Your task to perform on an android device: Clear the shopping cart on target.com. Image 0: 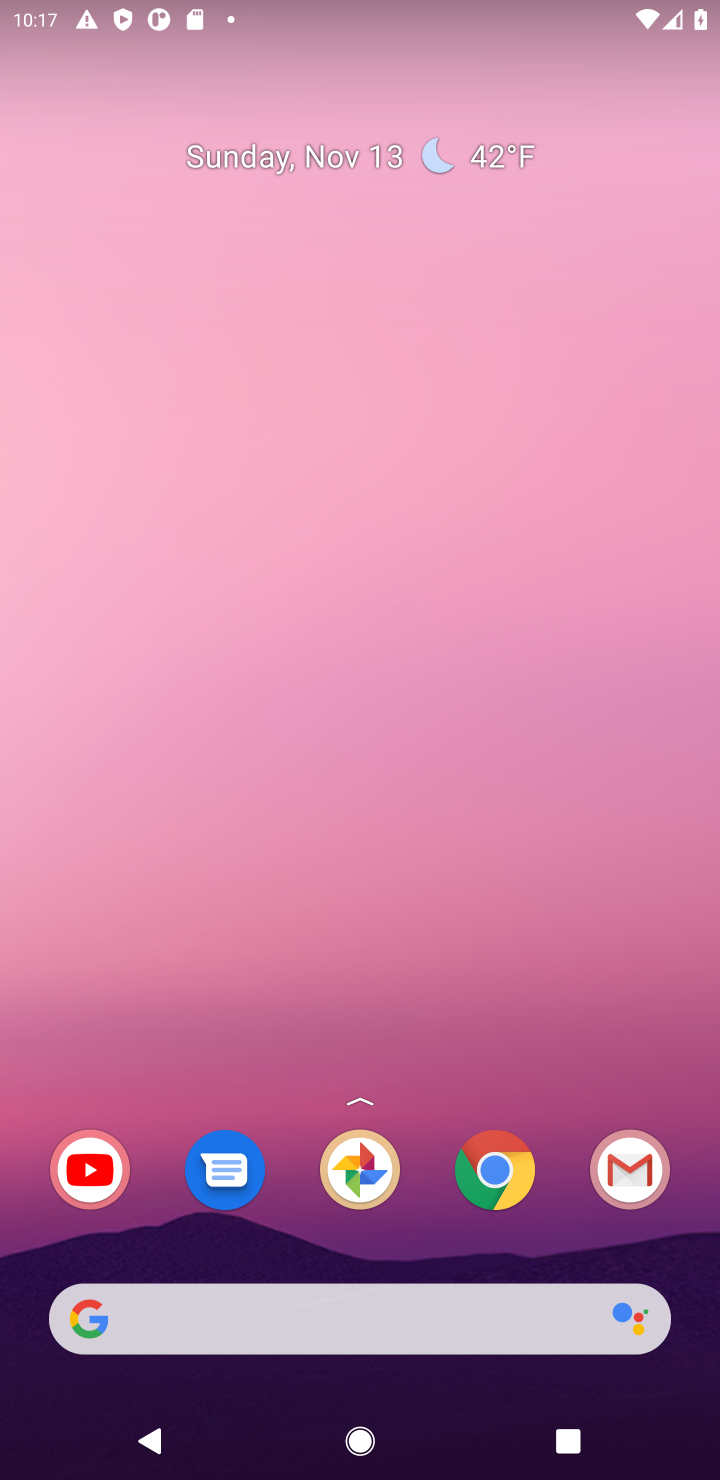
Step 0: drag from (200, 904) to (257, 21)
Your task to perform on an android device: Clear the shopping cart on target.com. Image 1: 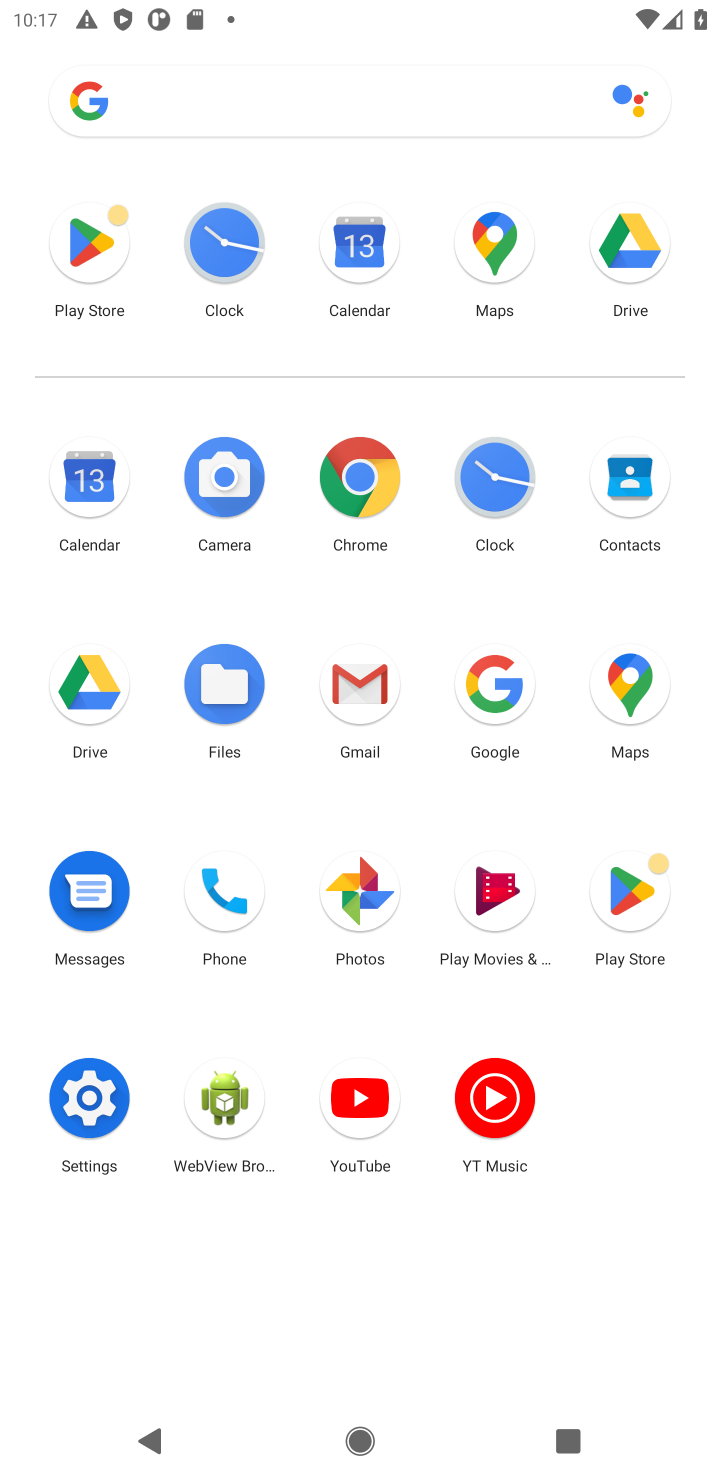
Step 1: click (346, 495)
Your task to perform on an android device: Clear the shopping cart on target.com. Image 2: 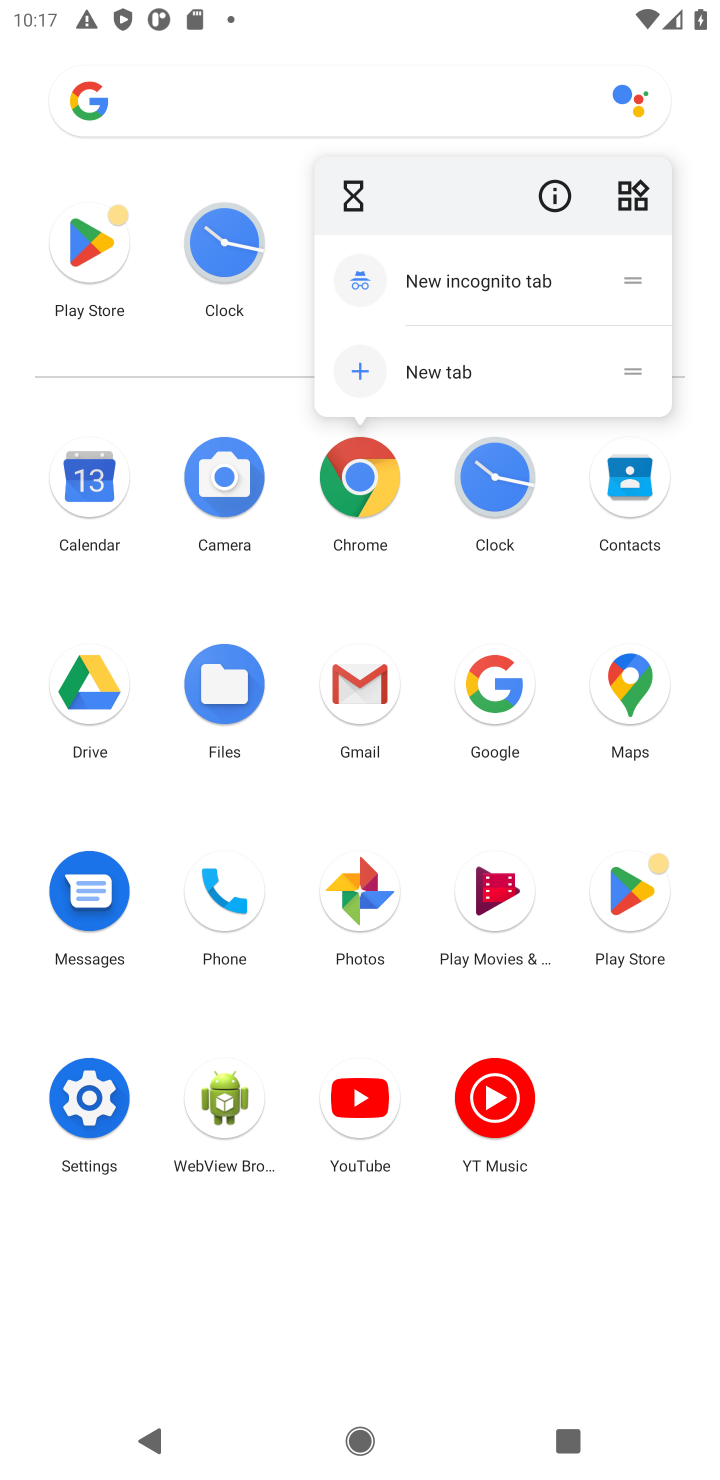
Step 2: click (359, 489)
Your task to perform on an android device: Clear the shopping cart on target.com. Image 3: 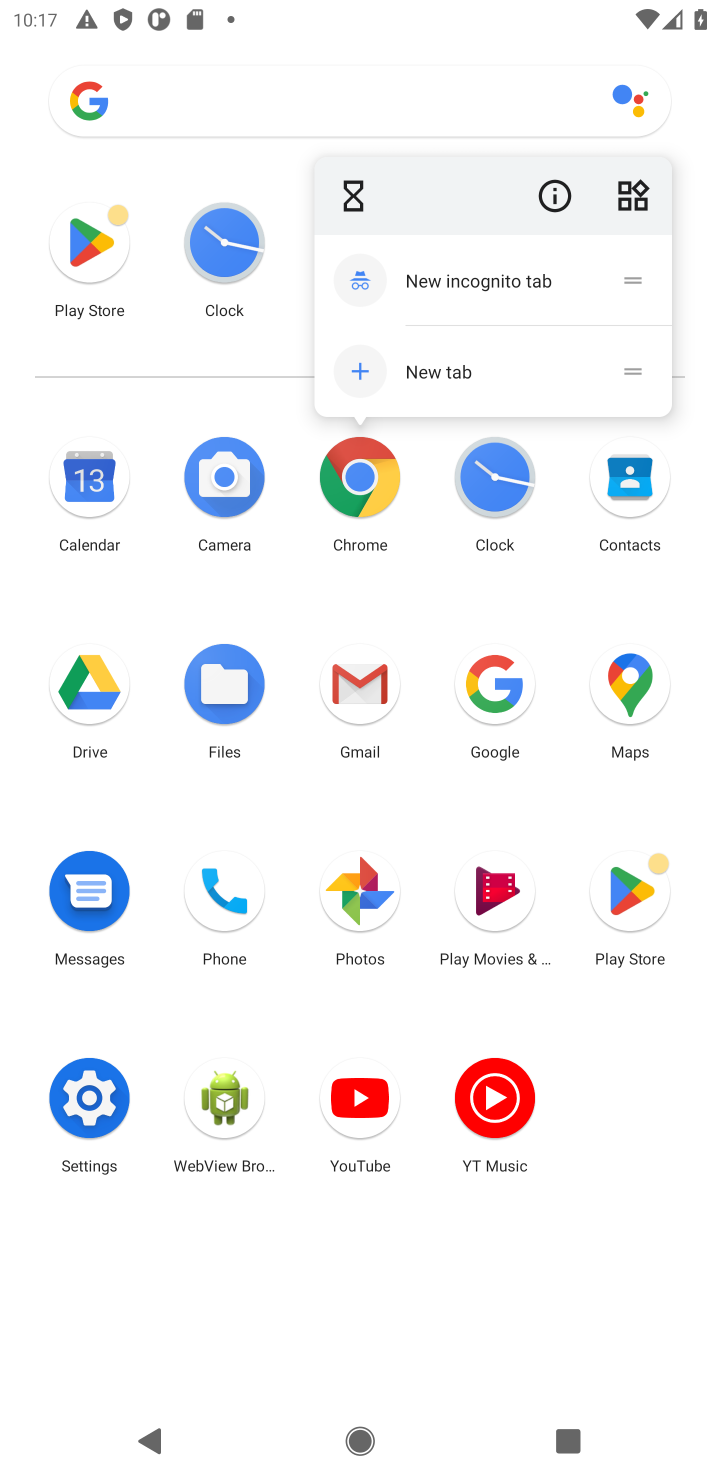
Step 3: click (359, 489)
Your task to perform on an android device: Clear the shopping cart on target.com. Image 4: 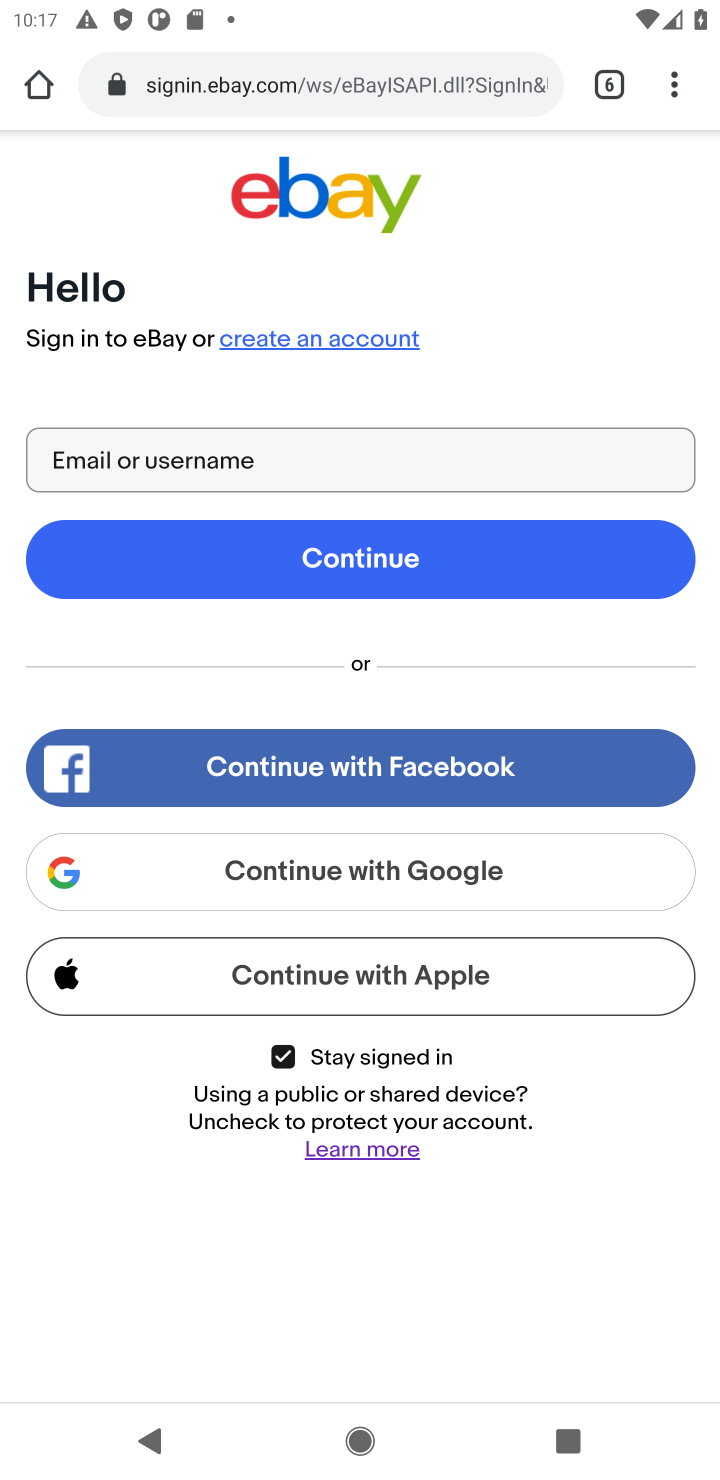
Step 4: click (401, 72)
Your task to perform on an android device: Clear the shopping cart on target.com. Image 5: 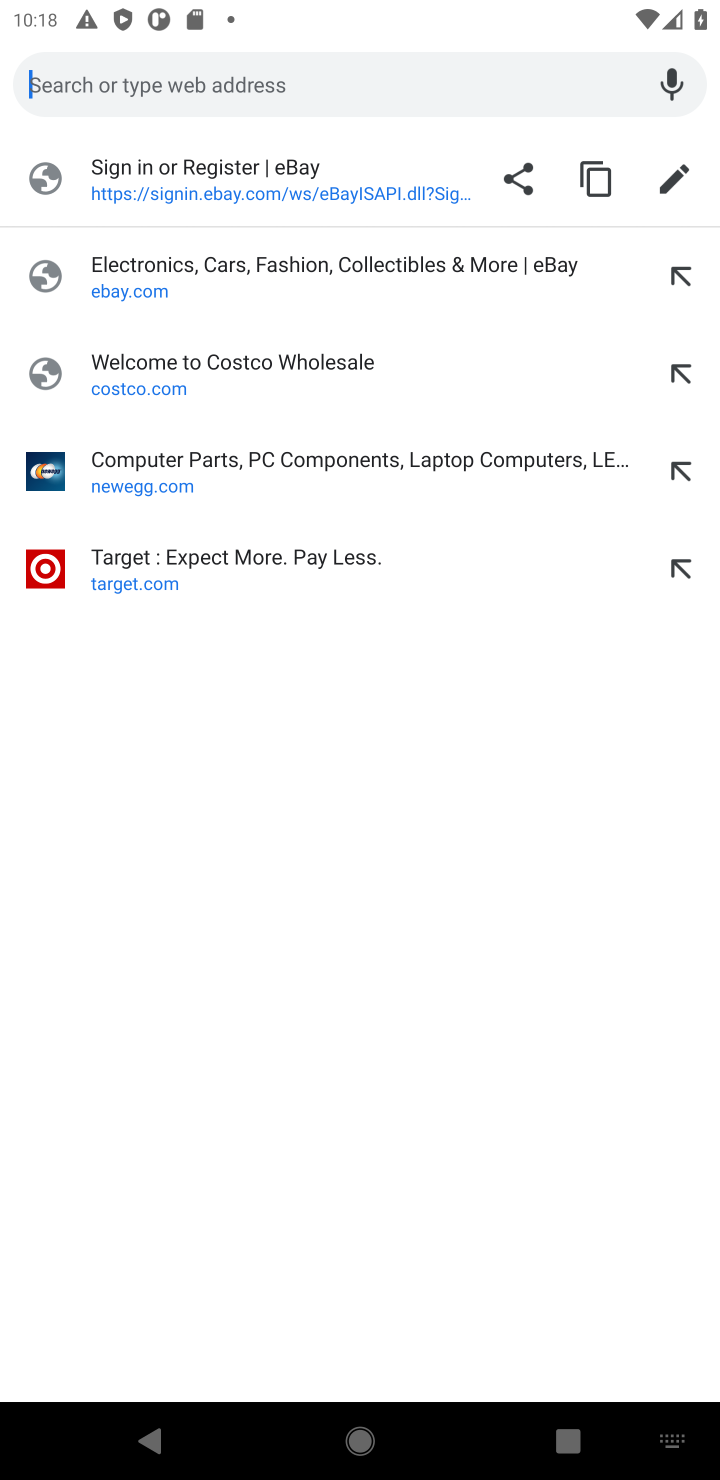
Step 5: type "target.com."
Your task to perform on an android device: Clear the shopping cart on target.com. Image 6: 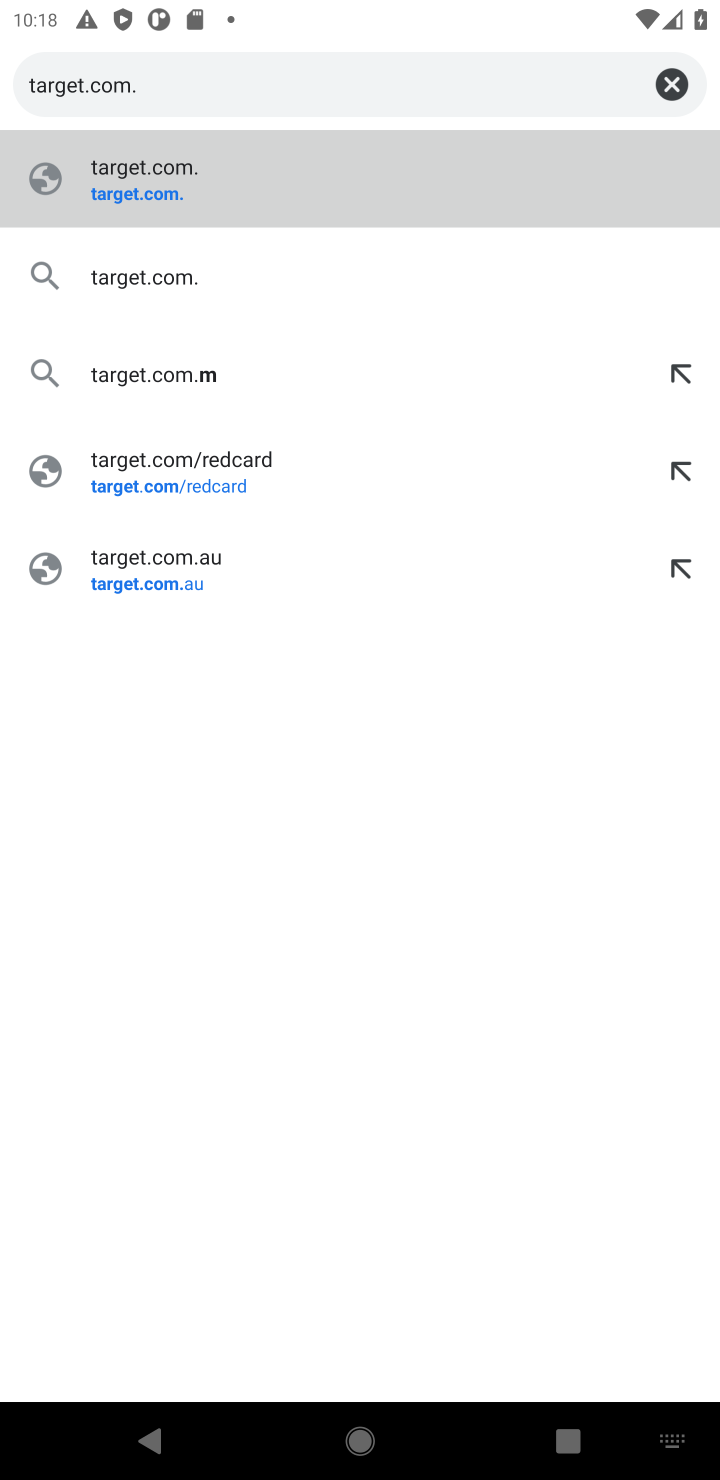
Step 6: press enter
Your task to perform on an android device: Clear the shopping cart on target.com. Image 7: 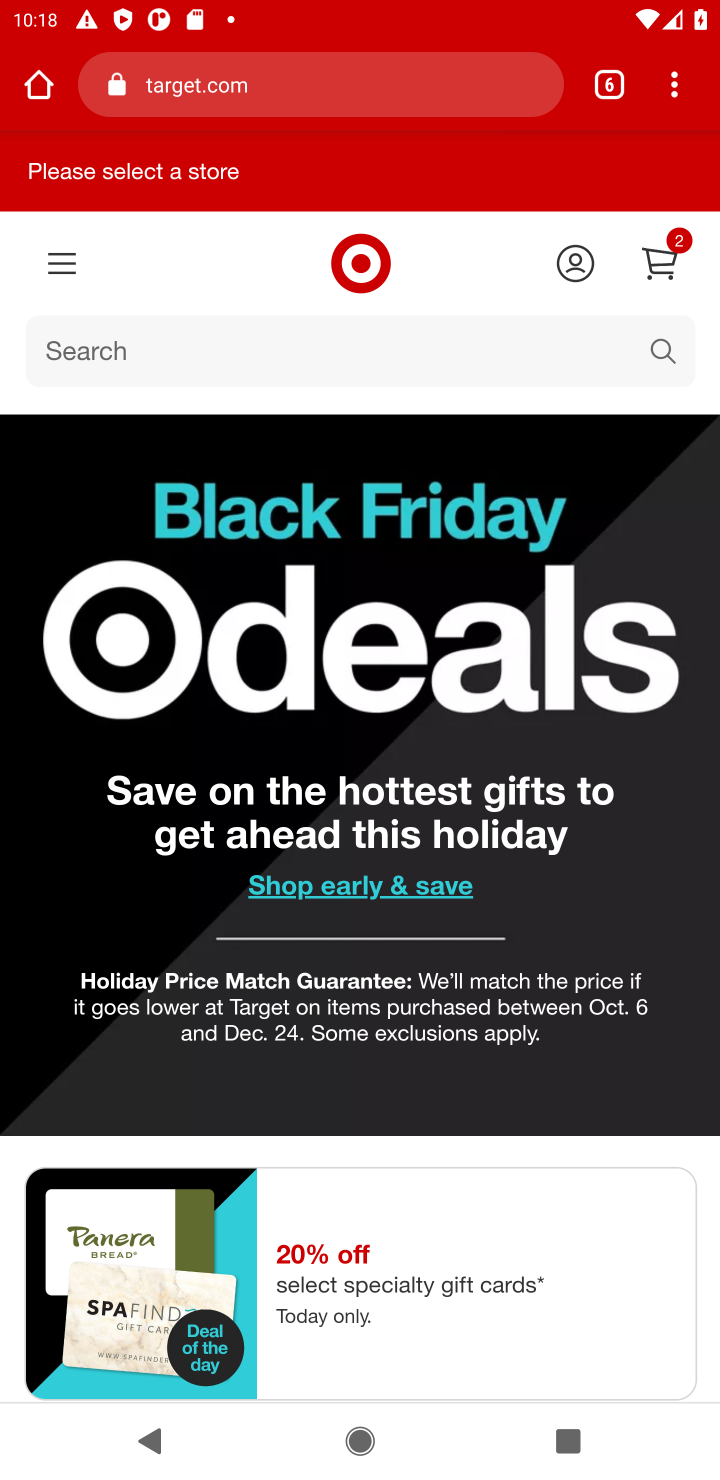
Step 7: click (646, 235)
Your task to perform on an android device: Clear the shopping cart on target.com. Image 8: 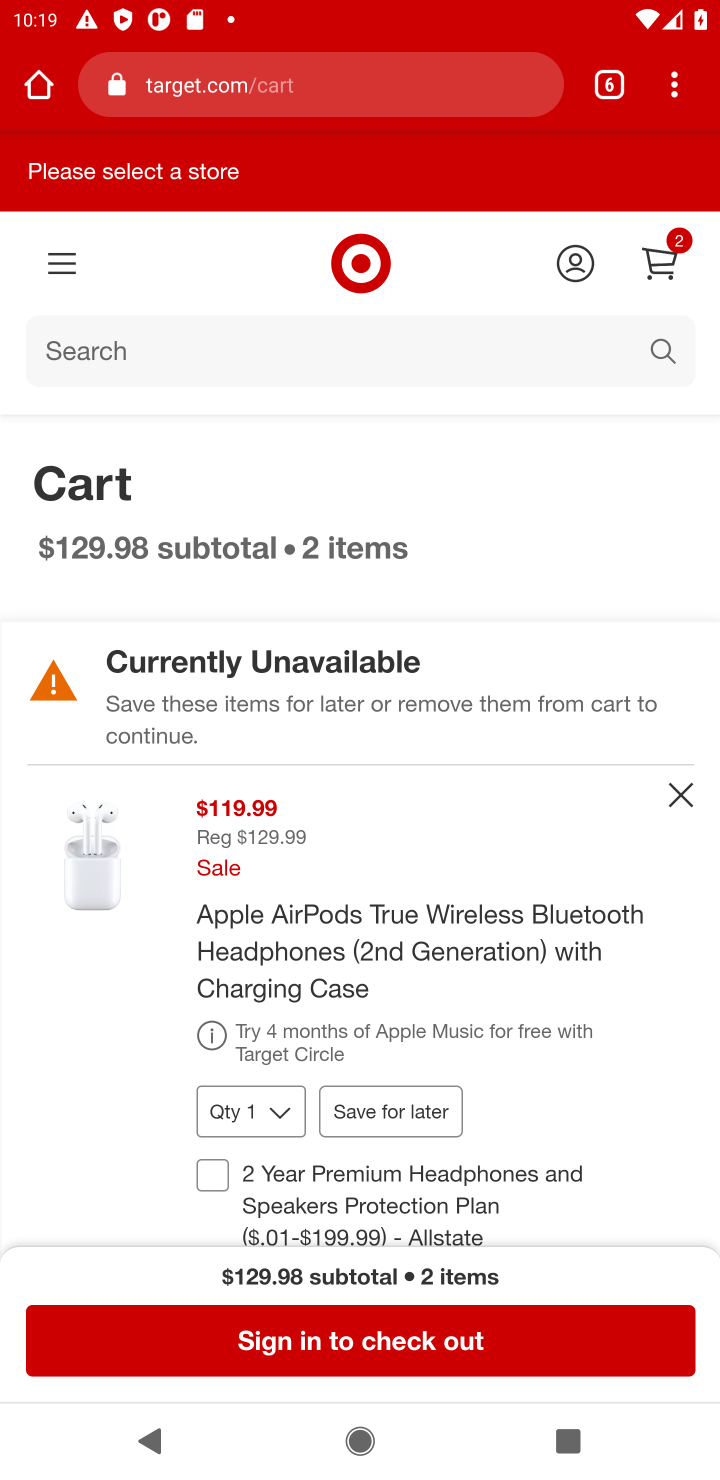
Step 8: click (676, 795)
Your task to perform on an android device: Clear the shopping cart on target.com. Image 9: 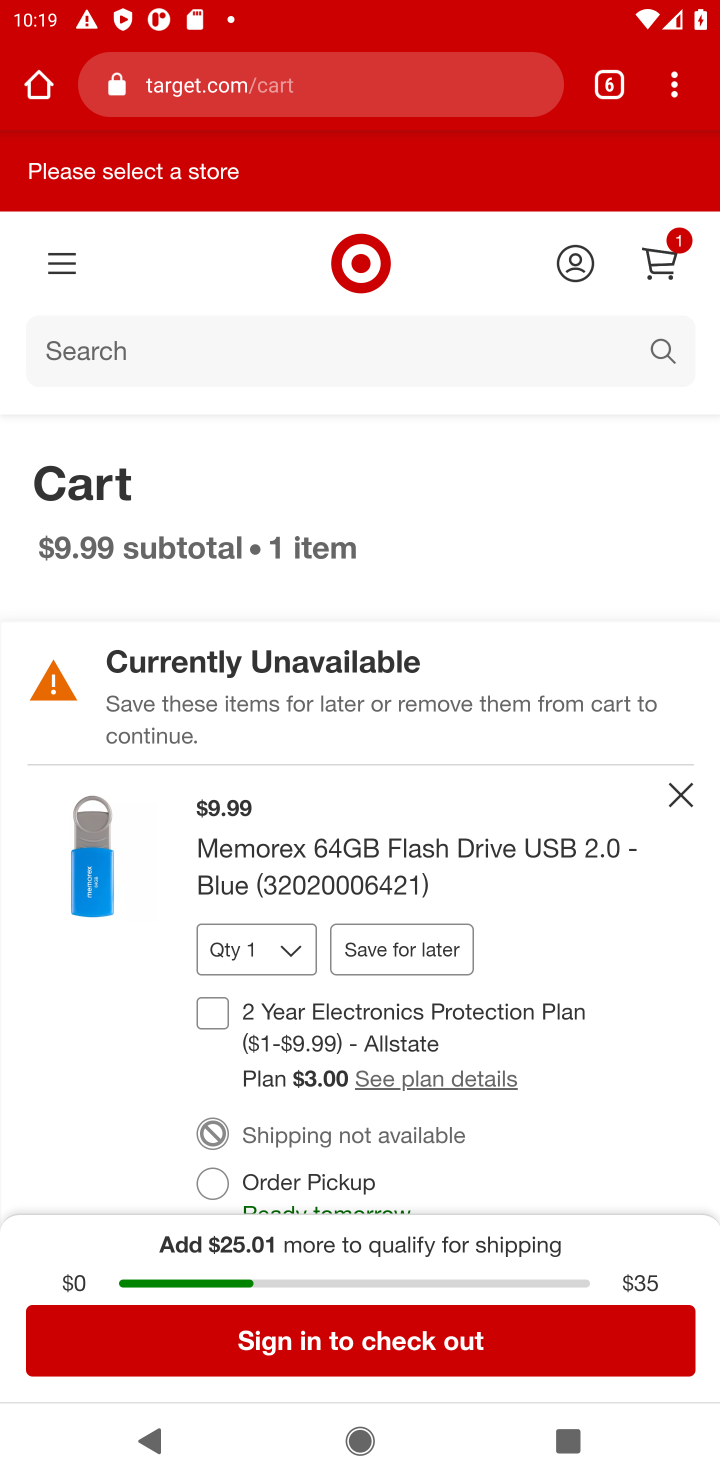
Step 9: click (679, 786)
Your task to perform on an android device: Clear the shopping cart on target.com. Image 10: 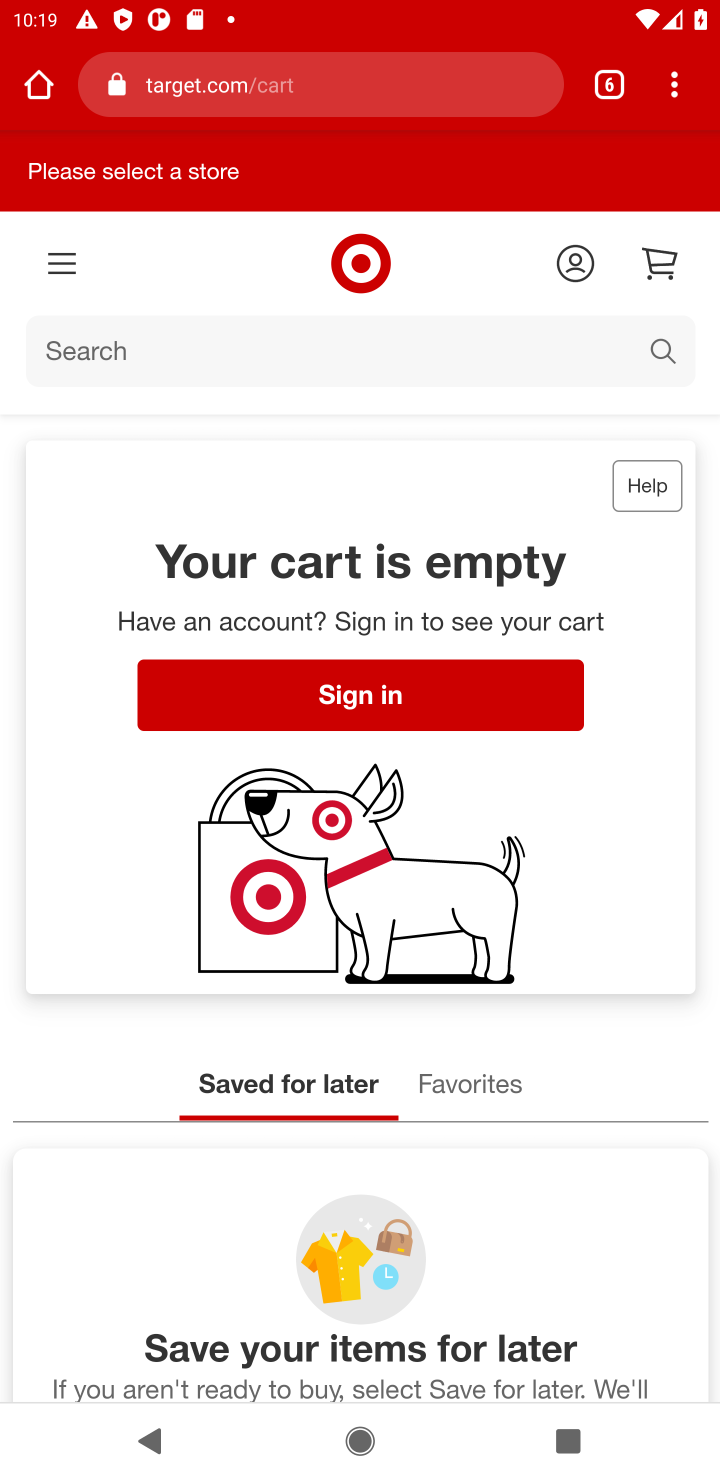
Step 10: task complete